Your task to perform on an android device: turn on sleep mode Image 0: 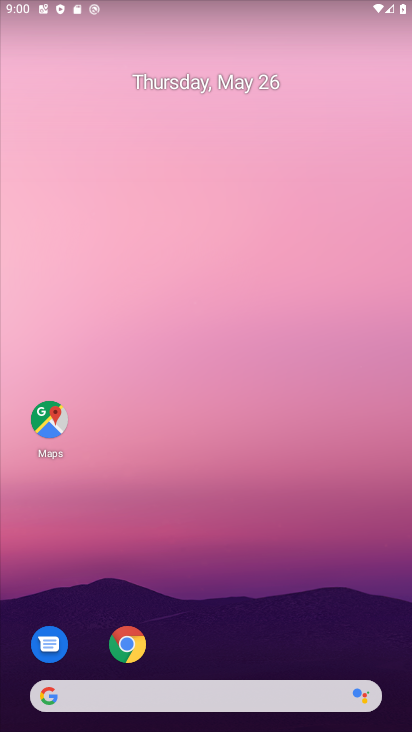
Step 0: drag from (201, 571) to (237, 107)
Your task to perform on an android device: turn on sleep mode Image 1: 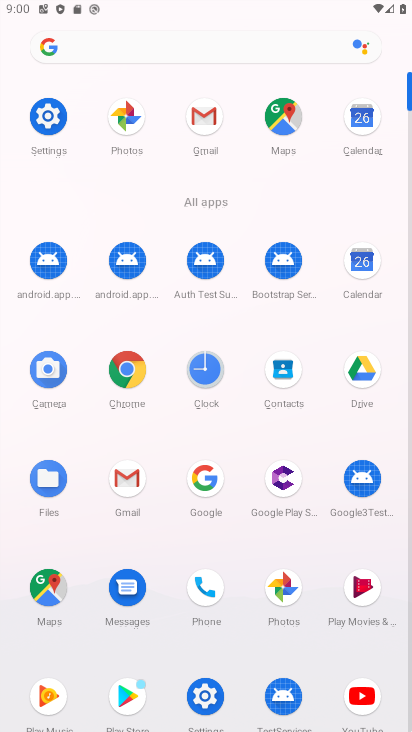
Step 1: click (52, 109)
Your task to perform on an android device: turn on sleep mode Image 2: 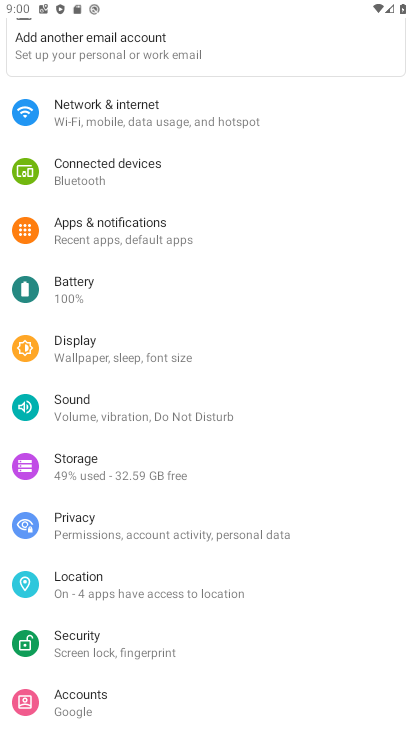
Step 2: drag from (141, 141) to (147, 683)
Your task to perform on an android device: turn on sleep mode Image 3: 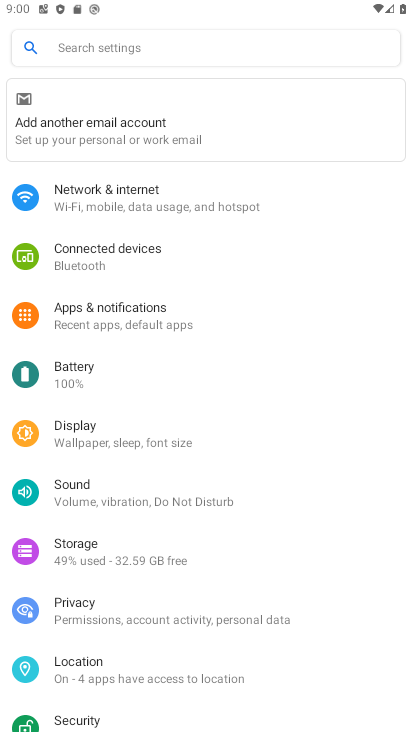
Step 3: click (102, 48)
Your task to perform on an android device: turn on sleep mode Image 4: 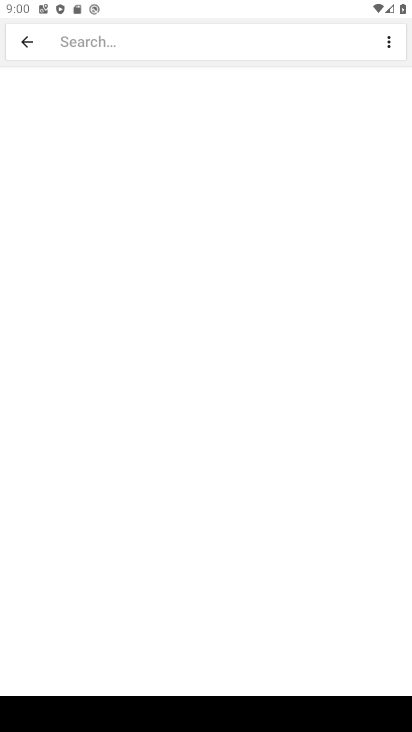
Step 4: type "sleep mode"
Your task to perform on an android device: turn on sleep mode Image 5: 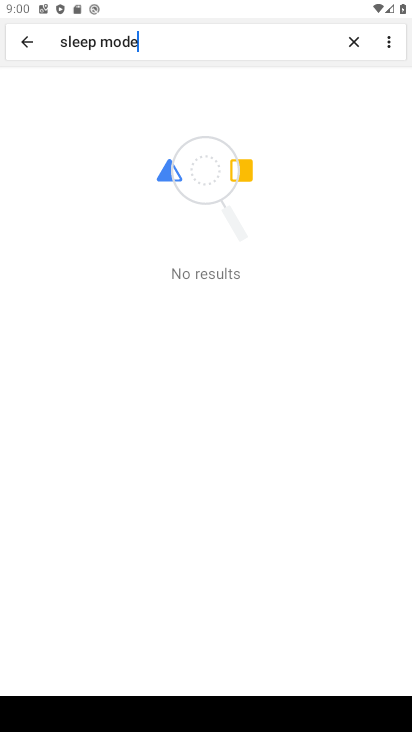
Step 5: task complete